Your task to perform on an android device: Open Wikipedia Image 0: 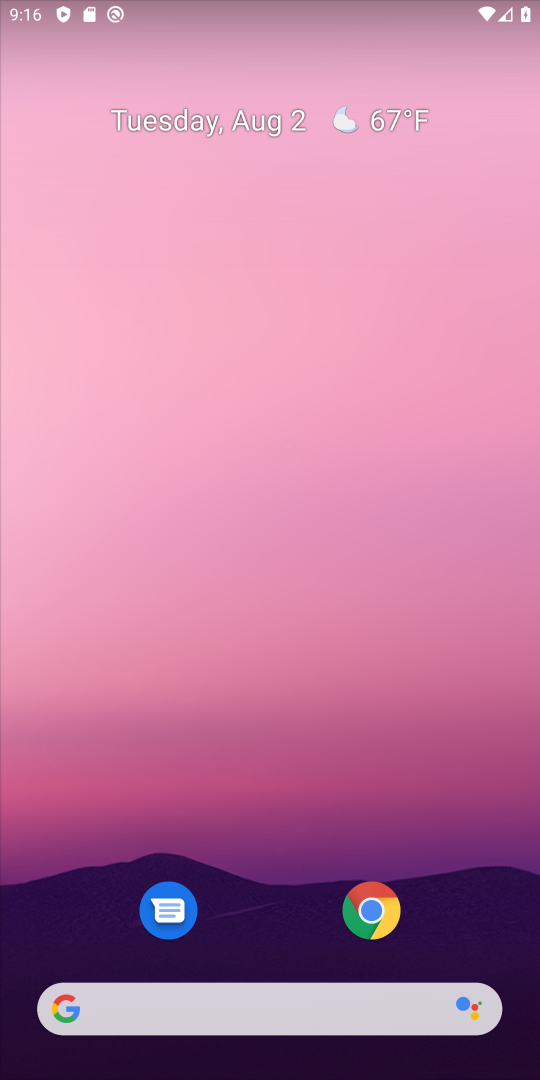
Step 0: drag from (278, 885) to (310, 316)
Your task to perform on an android device: Open Wikipedia Image 1: 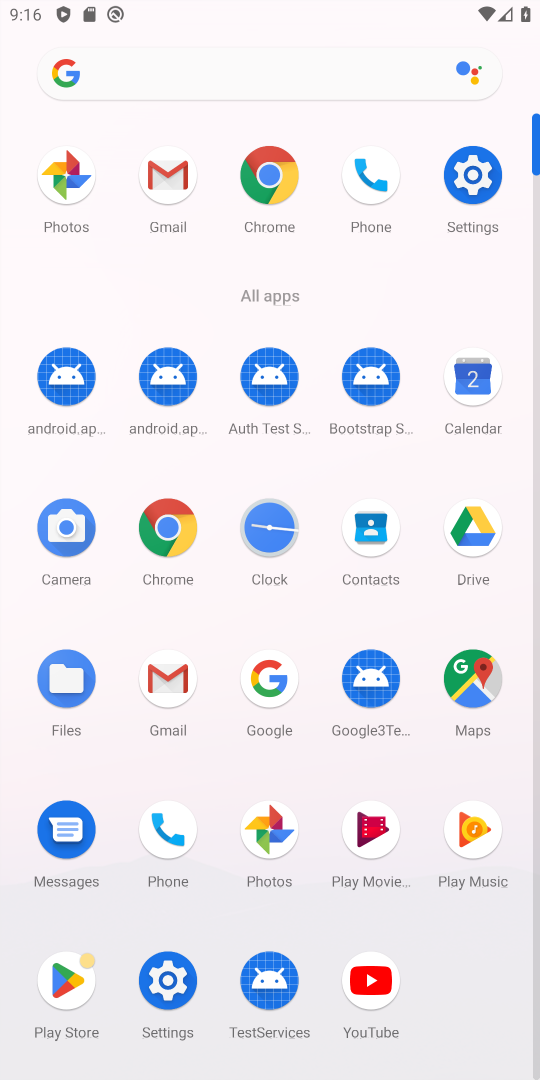
Step 1: click (169, 522)
Your task to perform on an android device: Open Wikipedia Image 2: 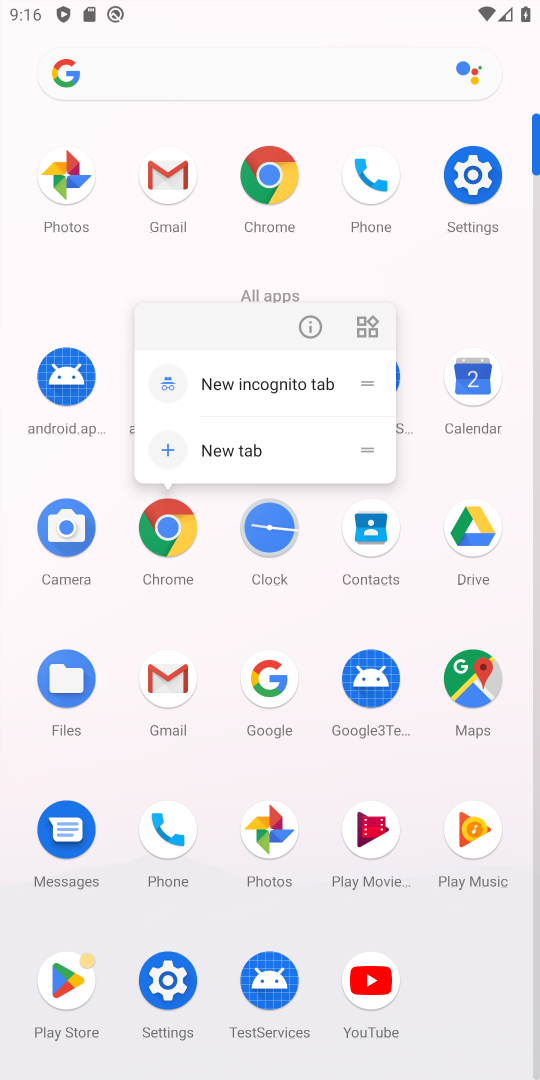
Step 2: click (163, 531)
Your task to perform on an android device: Open Wikipedia Image 3: 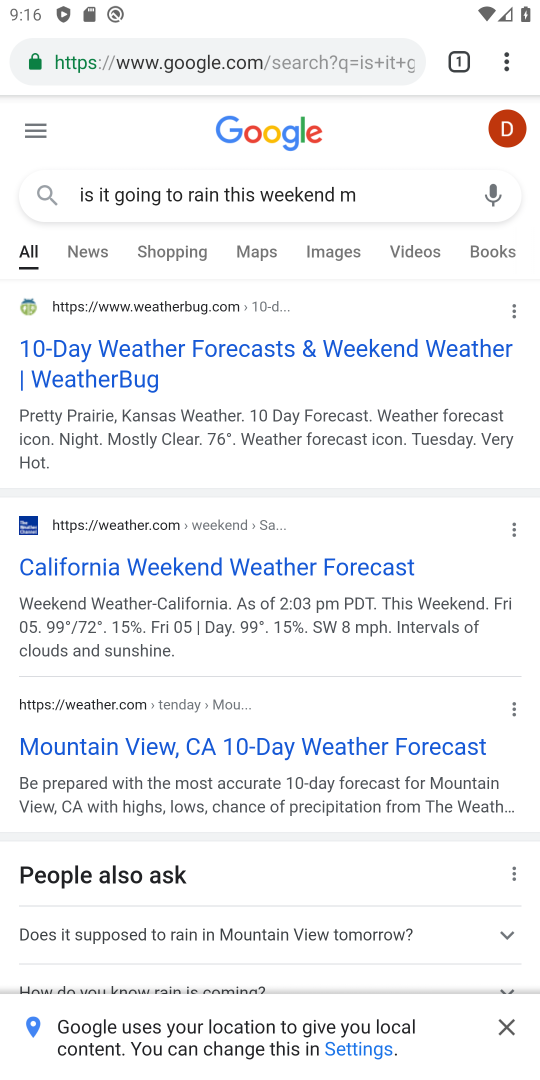
Step 3: click (504, 62)
Your task to perform on an android device: Open Wikipedia Image 4: 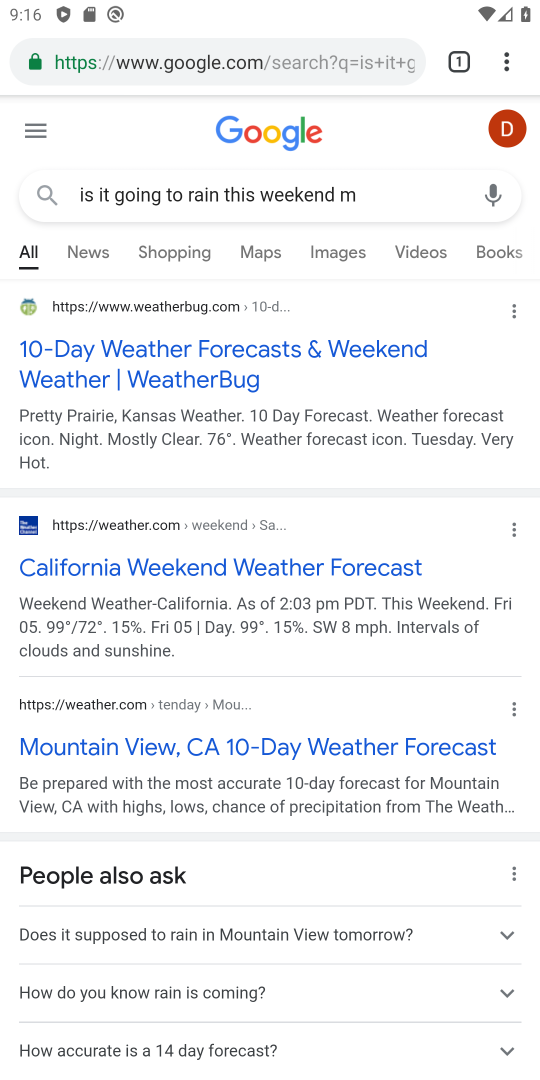
Step 4: click (497, 67)
Your task to perform on an android device: Open Wikipedia Image 5: 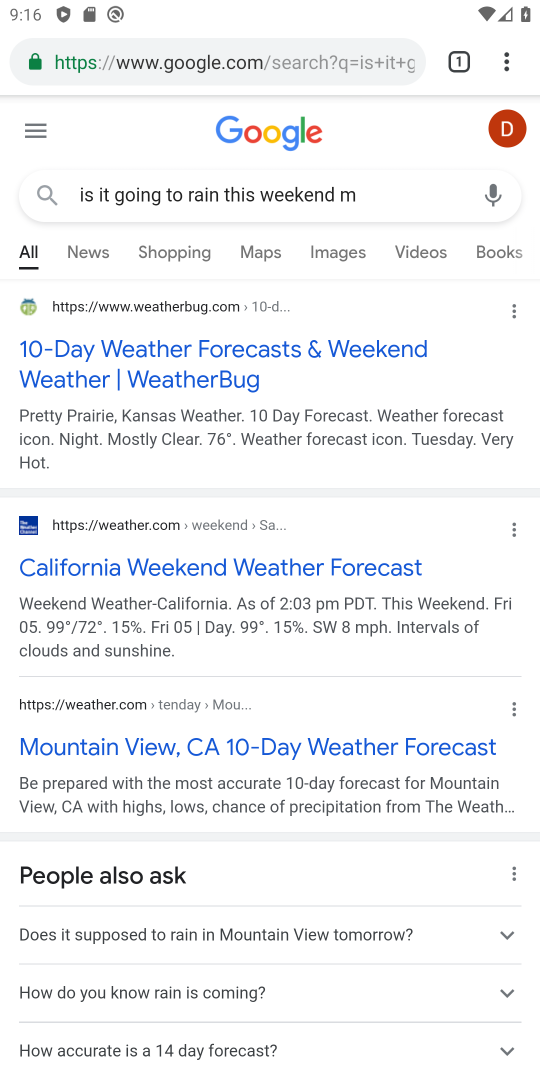
Step 5: click (500, 57)
Your task to perform on an android device: Open Wikipedia Image 6: 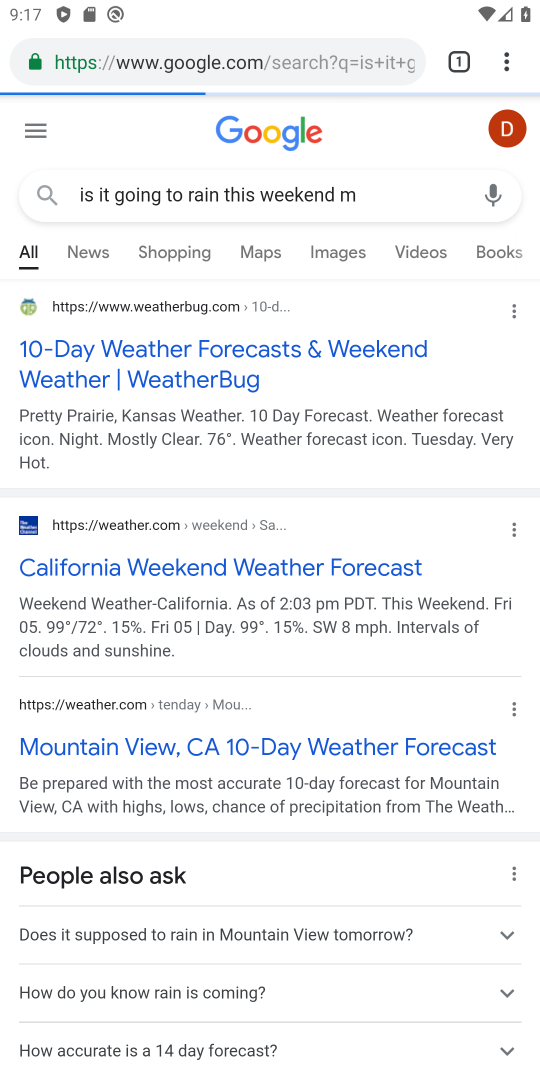
Step 6: click (500, 57)
Your task to perform on an android device: Open Wikipedia Image 7: 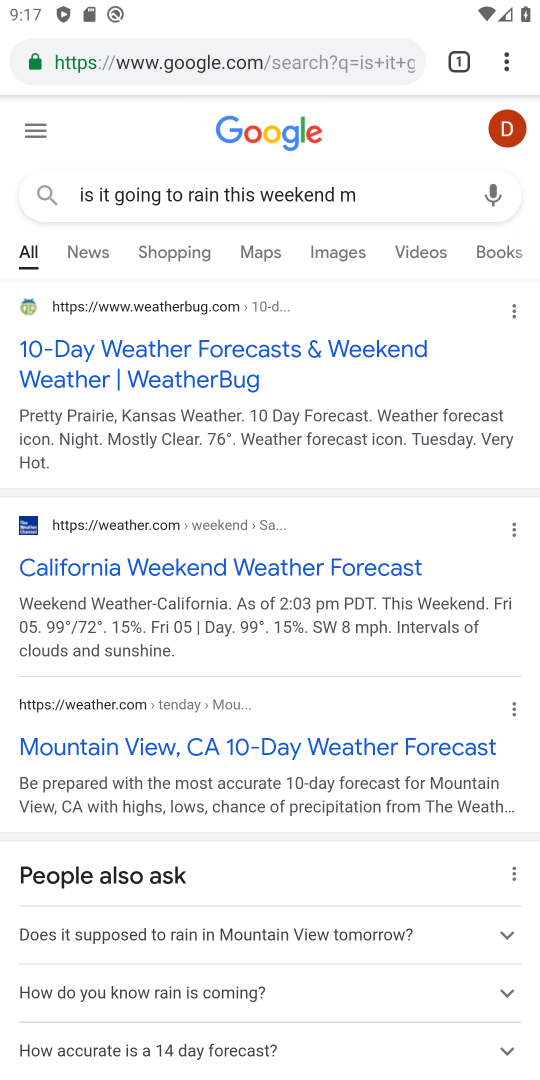
Step 7: click (508, 61)
Your task to perform on an android device: Open Wikipedia Image 8: 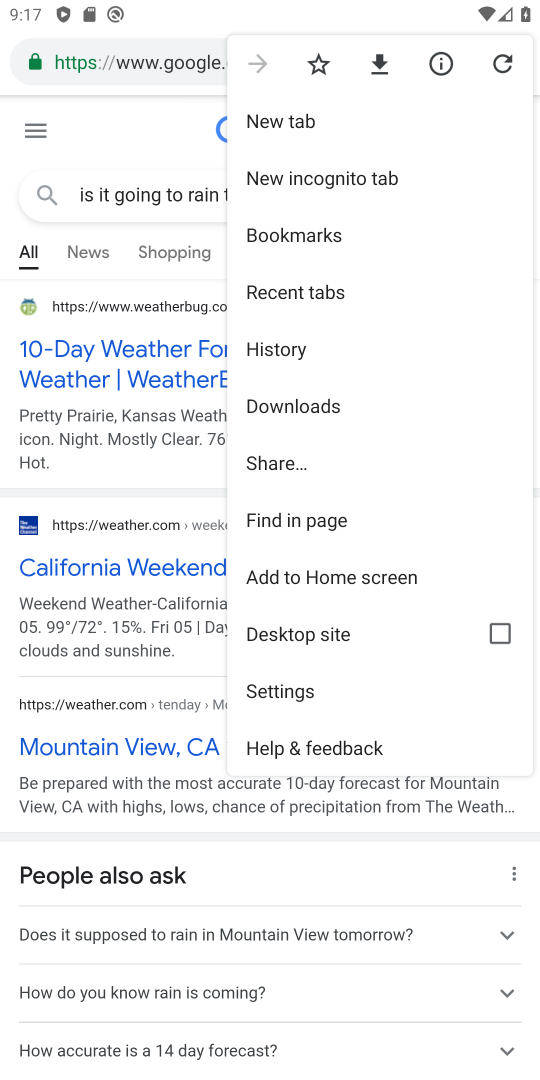
Step 8: click (310, 124)
Your task to perform on an android device: Open Wikipedia Image 9: 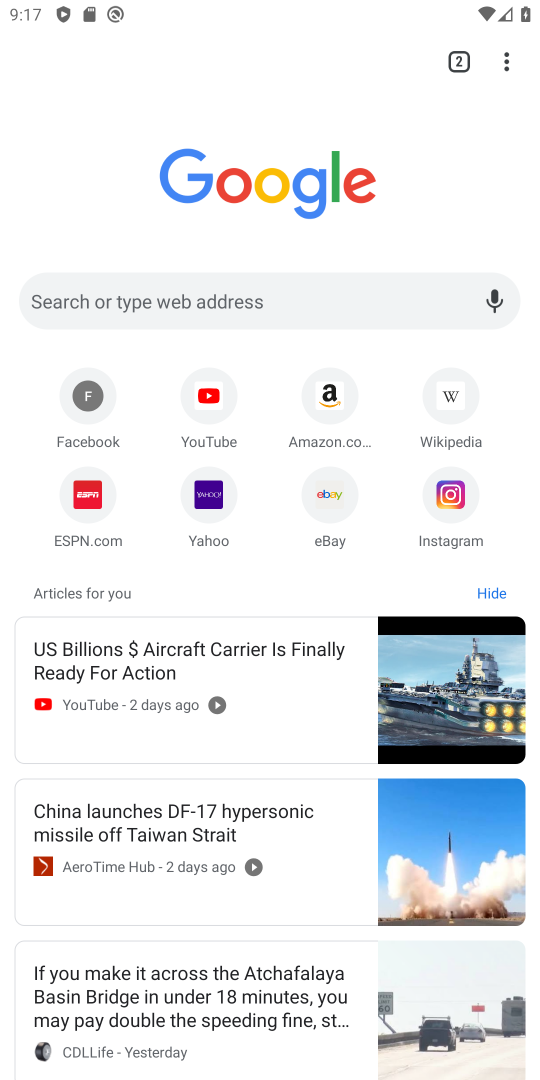
Step 9: click (452, 401)
Your task to perform on an android device: Open Wikipedia Image 10: 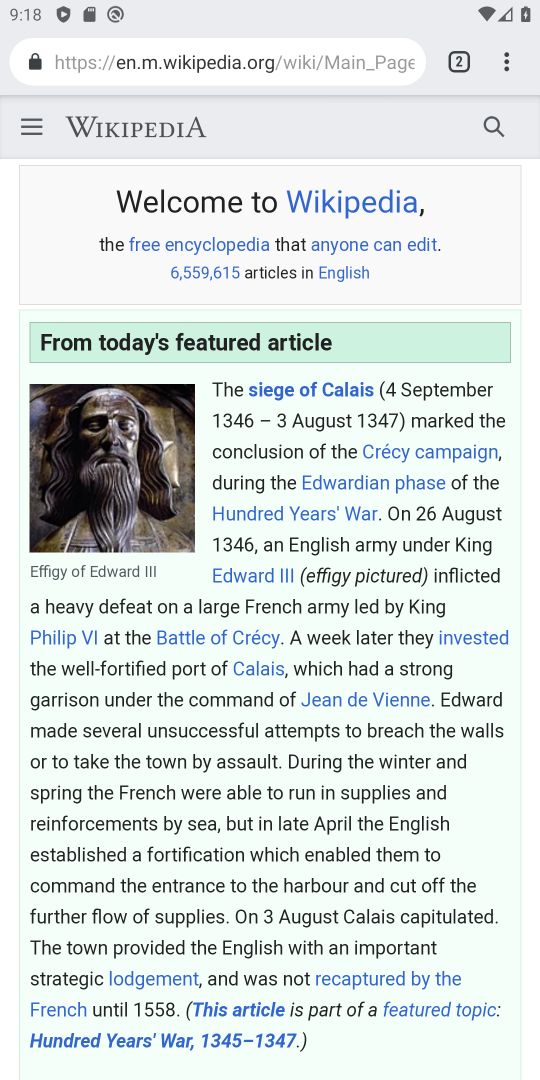
Step 10: task complete